Your task to perform on an android device: open wifi settings Image 0: 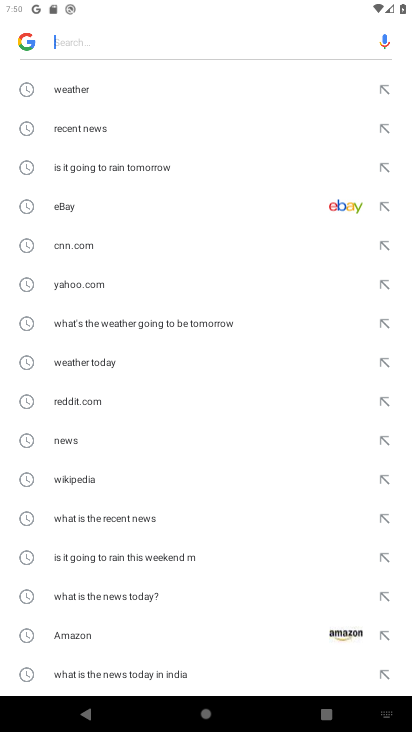
Step 0: press back button
Your task to perform on an android device: open wifi settings Image 1: 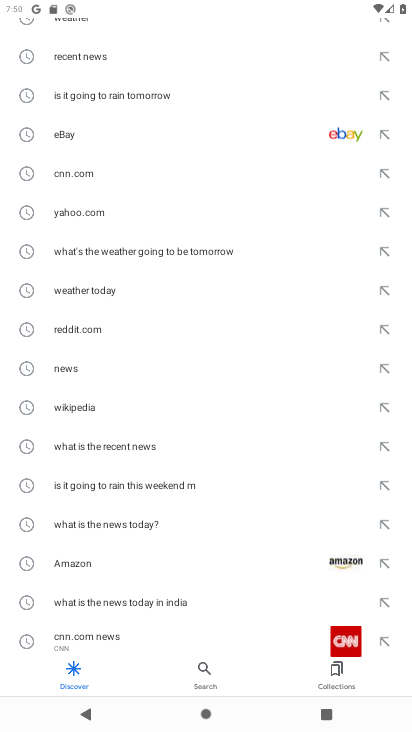
Step 1: press back button
Your task to perform on an android device: open wifi settings Image 2: 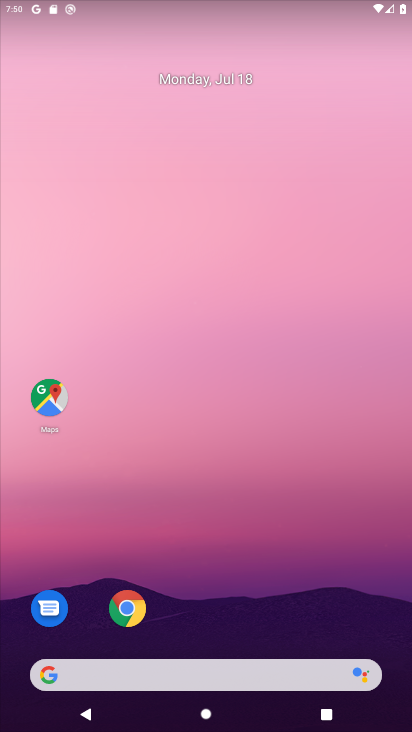
Step 2: drag from (207, 637) to (178, 152)
Your task to perform on an android device: open wifi settings Image 3: 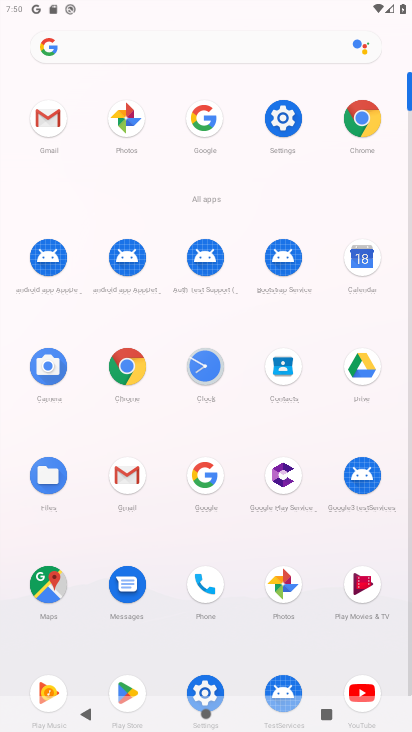
Step 3: click (275, 134)
Your task to perform on an android device: open wifi settings Image 4: 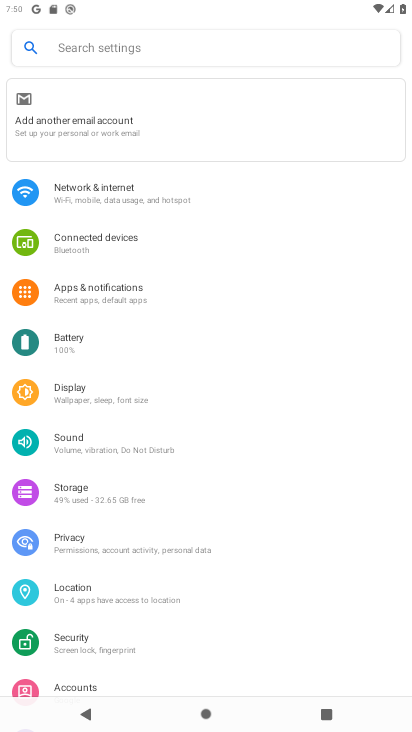
Step 4: click (85, 178)
Your task to perform on an android device: open wifi settings Image 5: 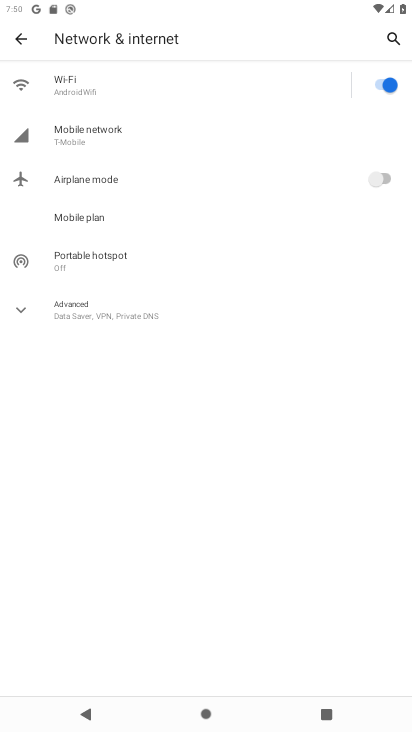
Step 5: click (74, 89)
Your task to perform on an android device: open wifi settings Image 6: 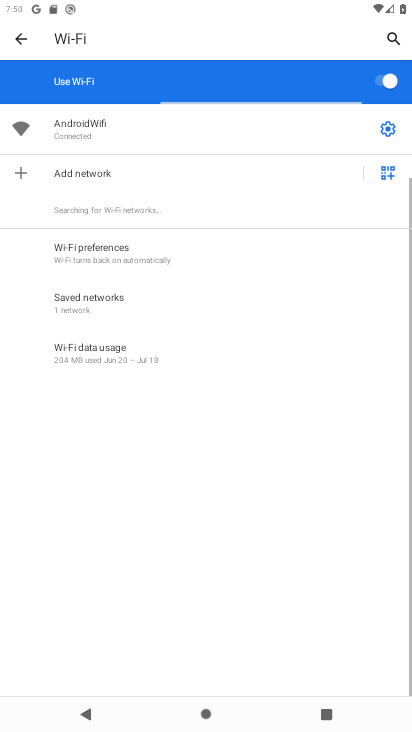
Step 6: task complete